Your task to perform on an android device: Go to display settings Image 0: 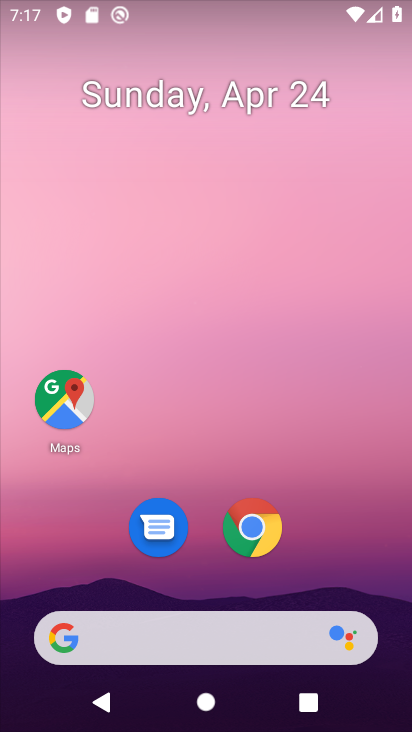
Step 0: drag from (337, 556) to (235, 22)
Your task to perform on an android device: Go to display settings Image 1: 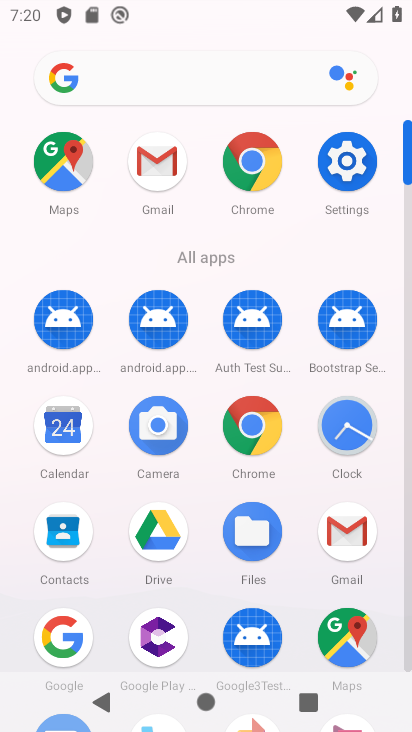
Step 1: click (356, 180)
Your task to perform on an android device: Go to display settings Image 2: 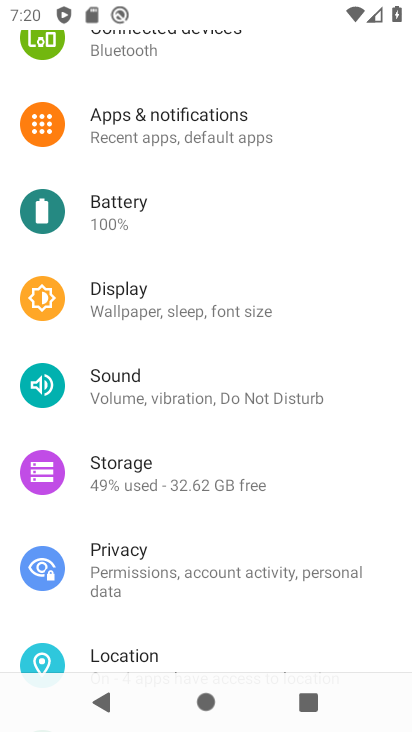
Step 2: click (162, 295)
Your task to perform on an android device: Go to display settings Image 3: 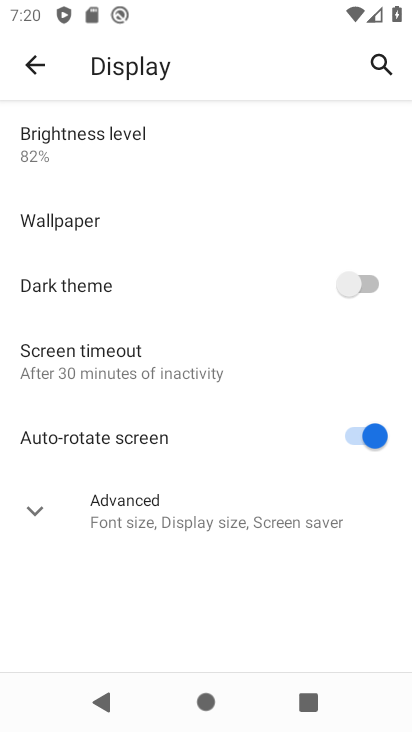
Step 3: task complete